Your task to perform on an android device: When is my next appointment? Image 0: 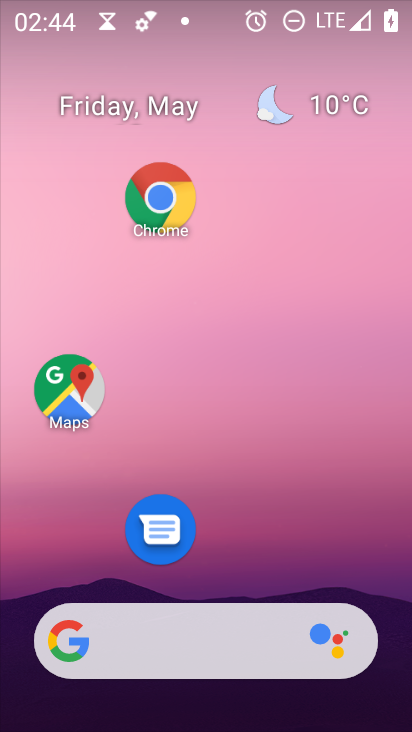
Step 0: drag from (222, 474) to (232, 305)
Your task to perform on an android device: When is my next appointment? Image 1: 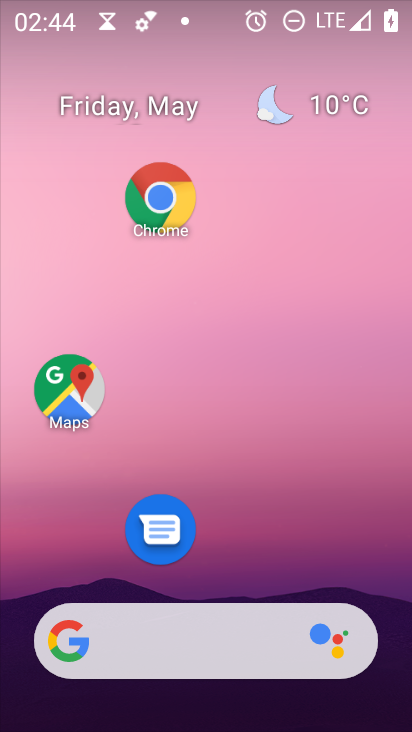
Step 1: drag from (230, 543) to (252, 281)
Your task to perform on an android device: When is my next appointment? Image 2: 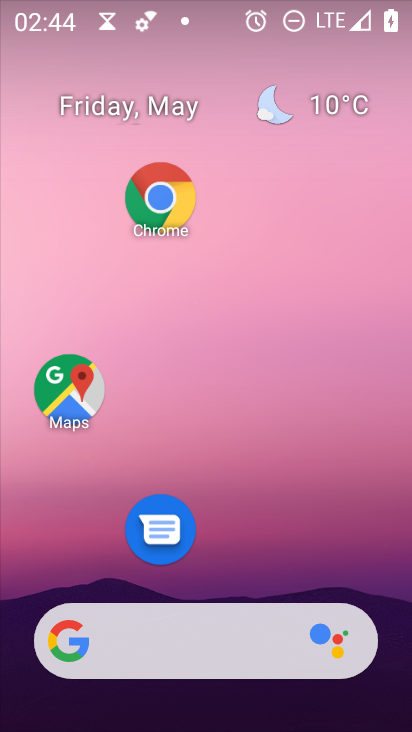
Step 2: drag from (230, 607) to (244, 281)
Your task to perform on an android device: When is my next appointment? Image 3: 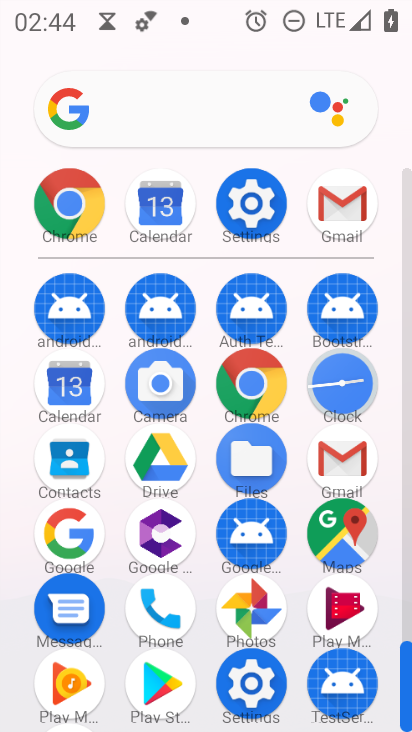
Step 3: click (60, 372)
Your task to perform on an android device: When is my next appointment? Image 4: 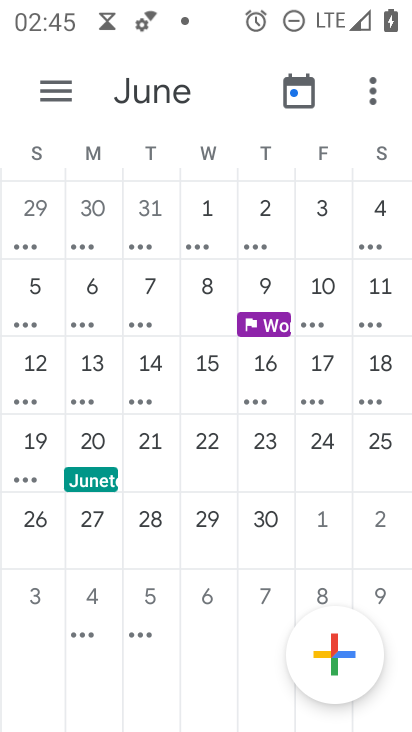
Step 4: task complete